Your task to perform on an android device: Go to CNN.com Image 0: 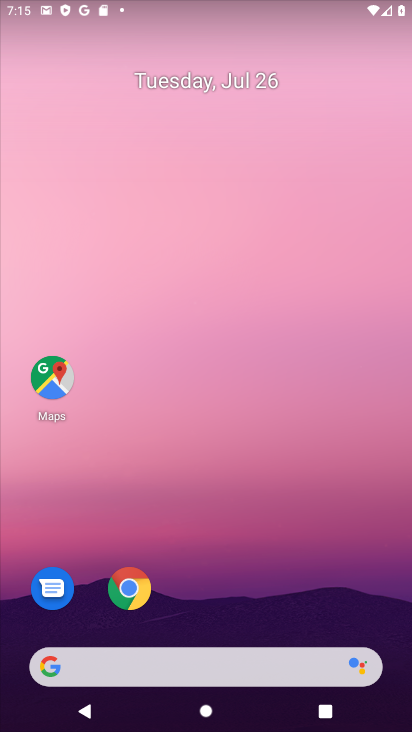
Step 0: drag from (241, 696) to (226, 151)
Your task to perform on an android device: Go to CNN.com Image 1: 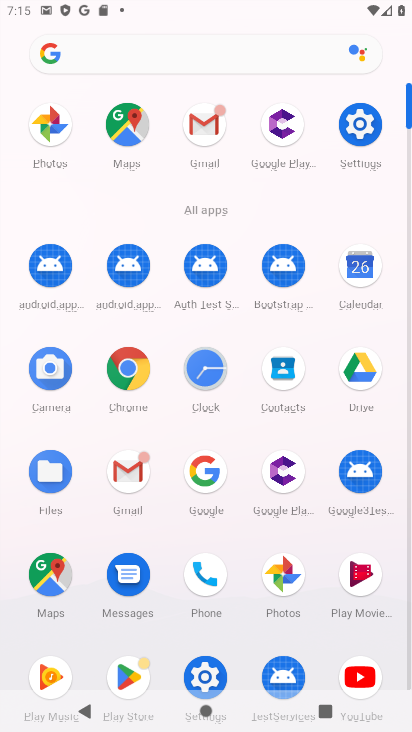
Step 1: click (135, 373)
Your task to perform on an android device: Go to CNN.com Image 2: 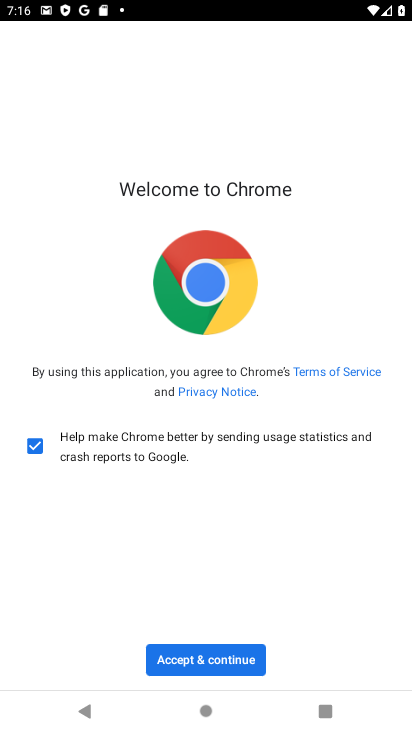
Step 2: click (209, 658)
Your task to perform on an android device: Go to CNN.com Image 3: 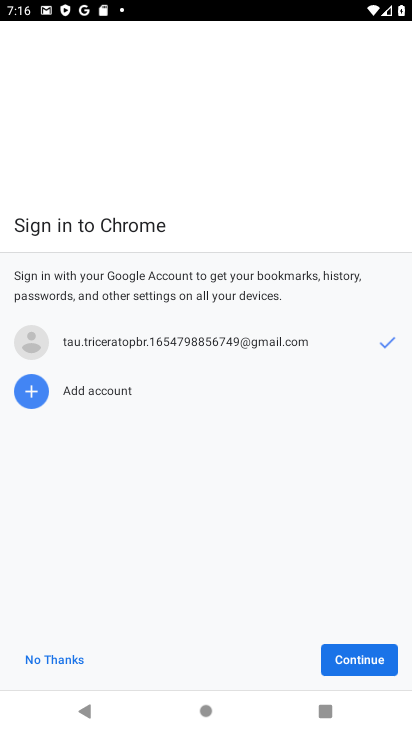
Step 3: click (341, 658)
Your task to perform on an android device: Go to CNN.com Image 4: 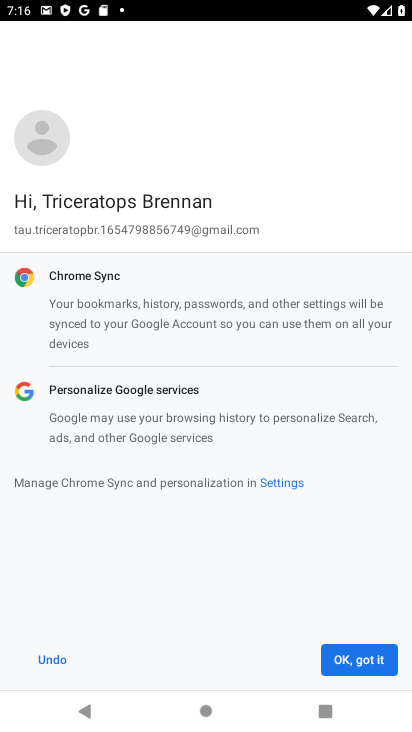
Step 4: click (341, 658)
Your task to perform on an android device: Go to CNN.com Image 5: 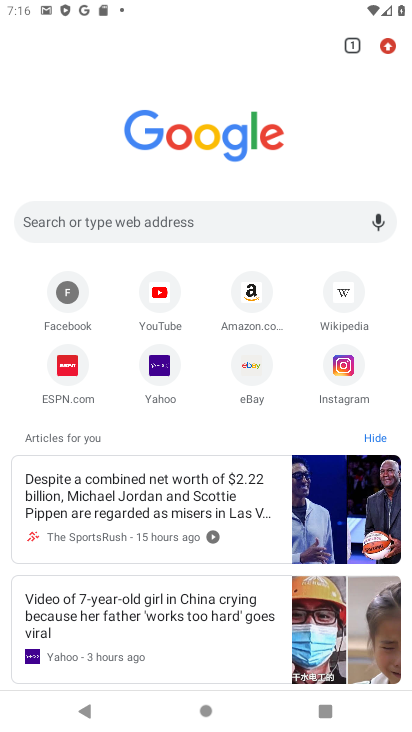
Step 5: click (171, 212)
Your task to perform on an android device: Go to CNN.com Image 6: 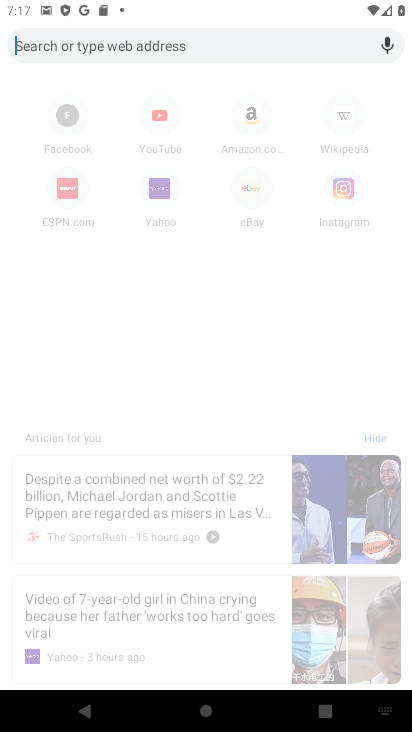
Step 6: type "cnn"
Your task to perform on an android device: Go to CNN.com Image 7: 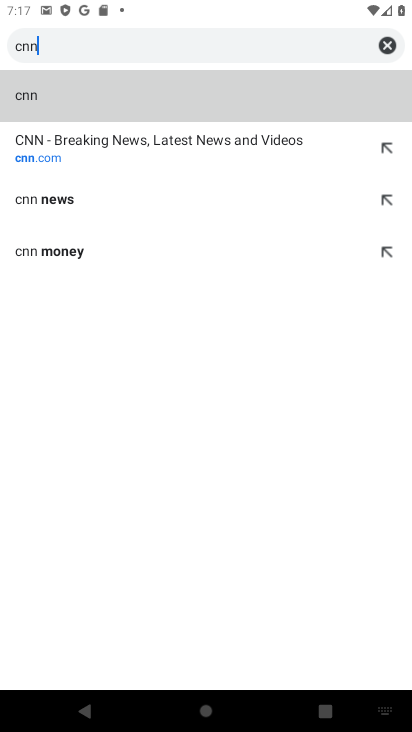
Step 7: click (74, 151)
Your task to perform on an android device: Go to CNN.com Image 8: 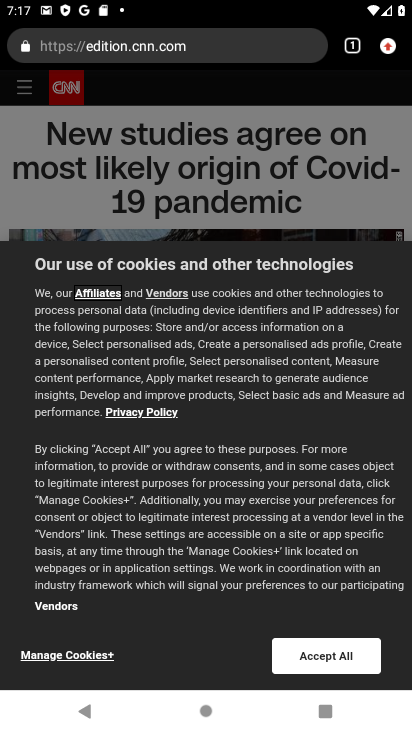
Step 8: task complete